Your task to perform on an android device: change notification settings in the gmail app Image 0: 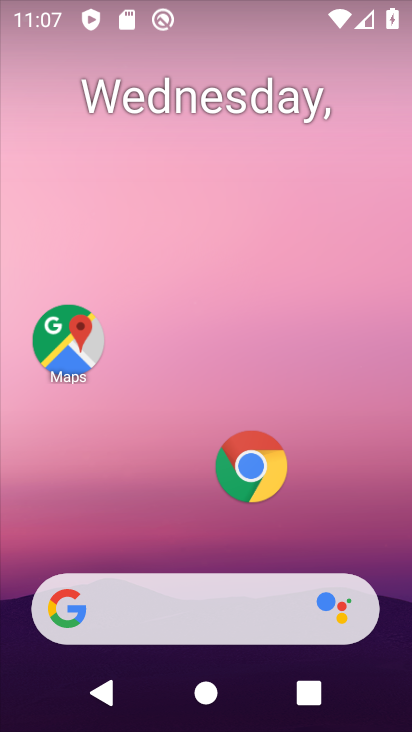
Step 0: drag from (269, 658) to (250, 178)
Your task to perform on an android device: change notification settings in the gmail app Image 1: 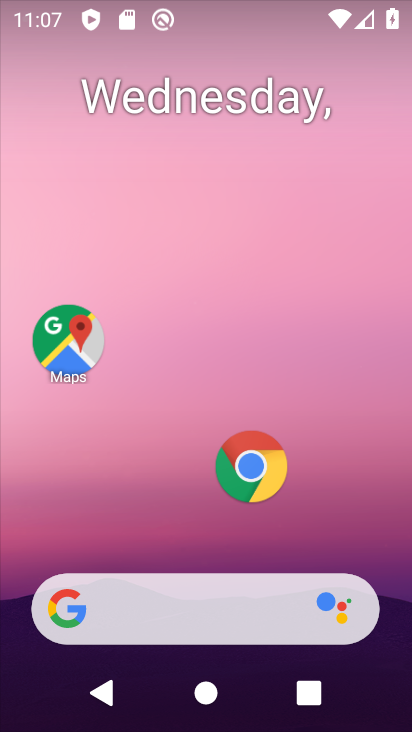
Step 1: drag from (275, 685) to (180, 23)
Your task to perform on an android device: change notification settings in the gmail app Image 2: 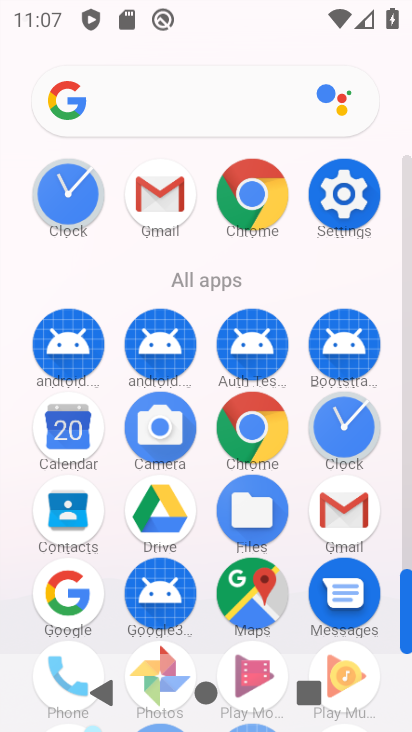
Step 2: click (349, 505)
Your task to perform on an android device: change notification settings in the gmail app Image 3: 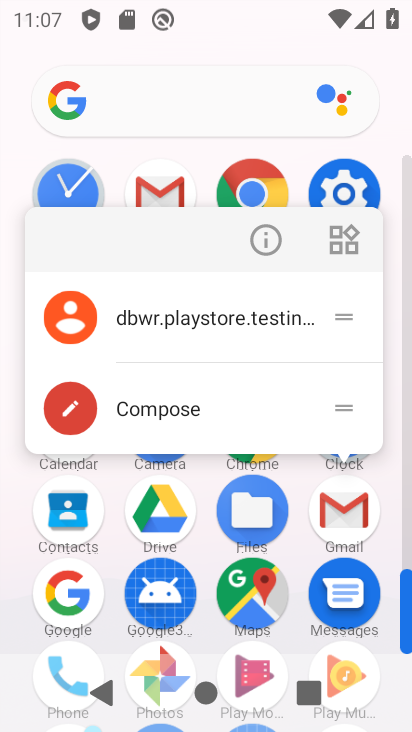
Step 3: click (349, 505)
Your task to perform on an android device: change notification settings in the gmail app Image 4: 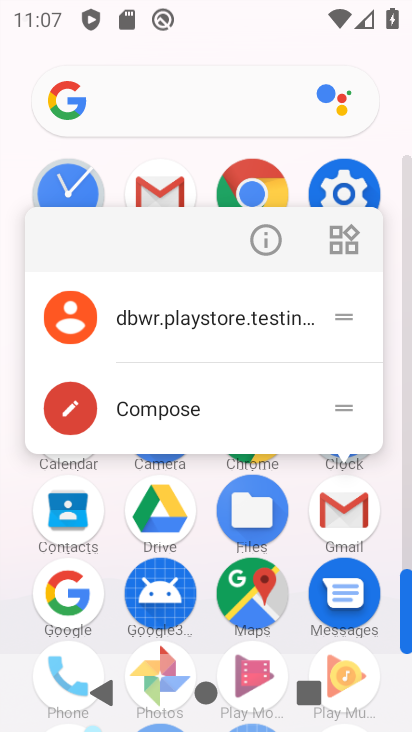
Step 4: click (206, 306)
Your task to perform on an android device: change notification settings in the gmail app Image 5: 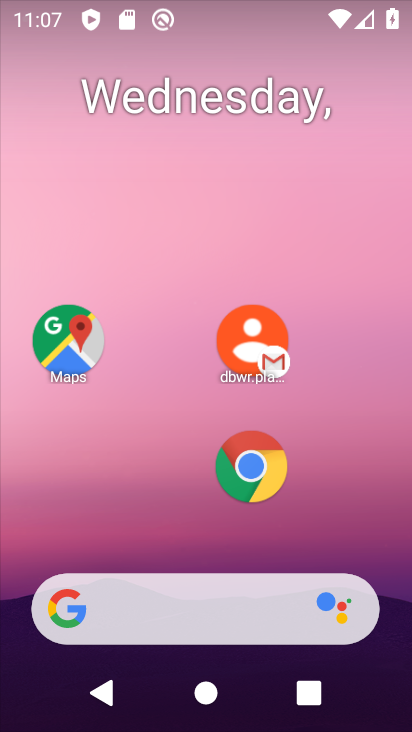
Step 5: drag from (312, 639) to (199, 148)
Your task to perform on an android device: change notification settings in the gmail app Image 6: 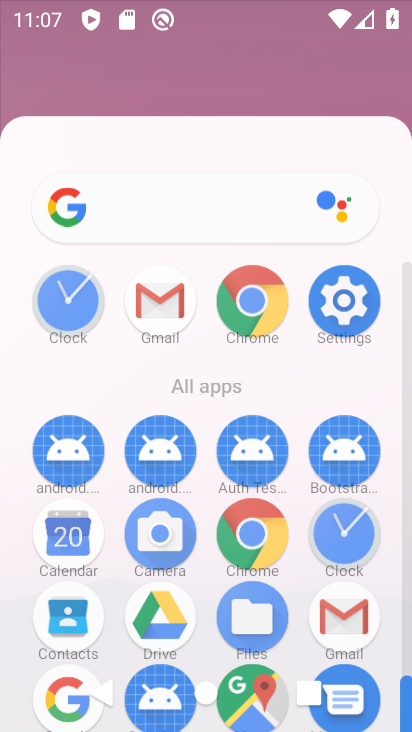
Step 6: drag from (321, 440) to (270, 268)
Your task to perform on an android device: change notification settings in the gmail app Image 7: 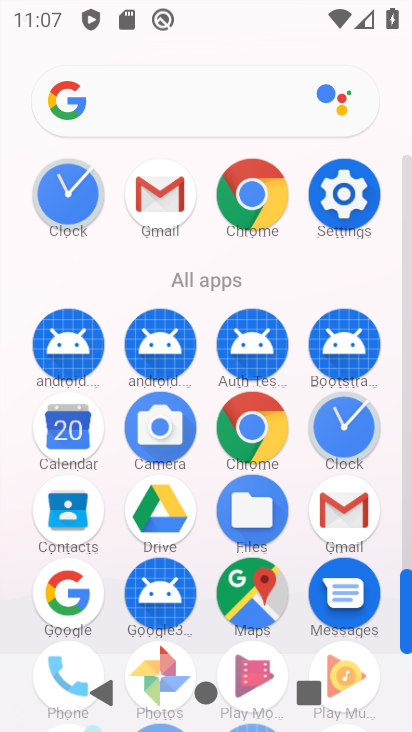
Step 7: click (343, 507)
Your task to perform on an android device: change notification settings in the gmail app Image 8: 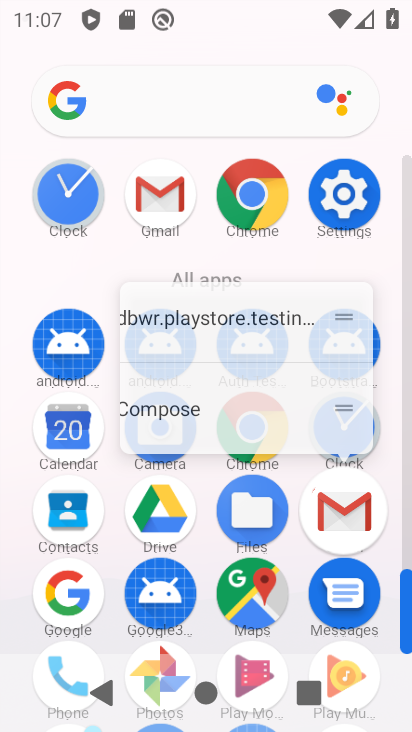
Step 8: click (344, 507)
Your task to perform on an android device: change notification settings in the gmail app Image 9: 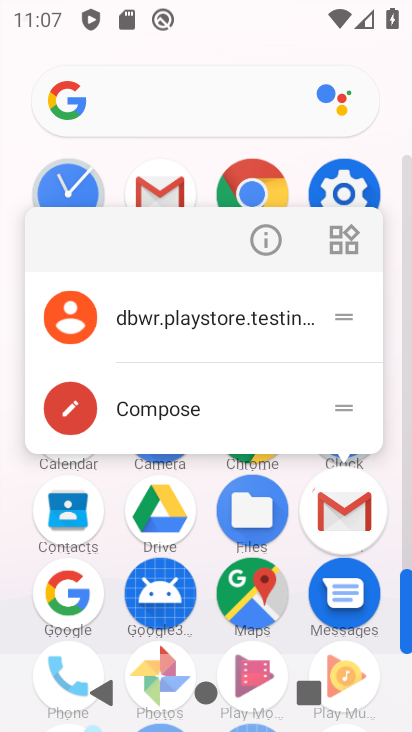
Step 9: click (344, 492)
Your task to perform on an android device: change notification settings in the gmail app Image 10: 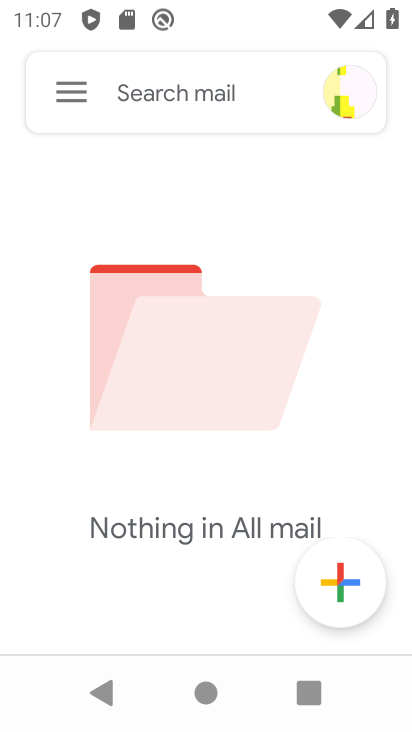
Step 10: click (71, 82)
Your task to perform on an android device: change notification settings in the gmail app Image 11: 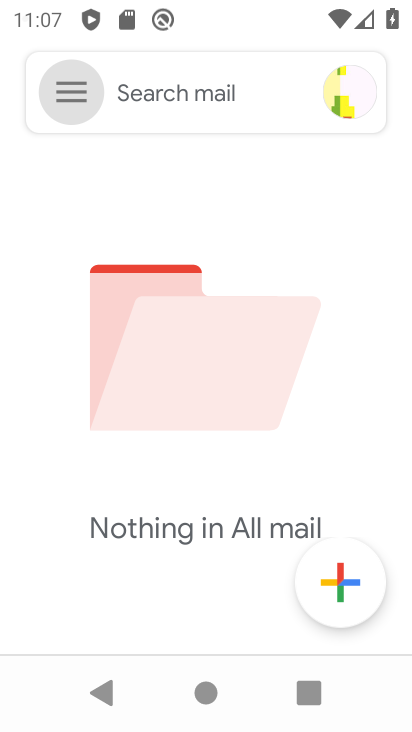
Step 11: click (72, 82)
Your task to perform on an android device: change notification settings in the gmail app Image 12: 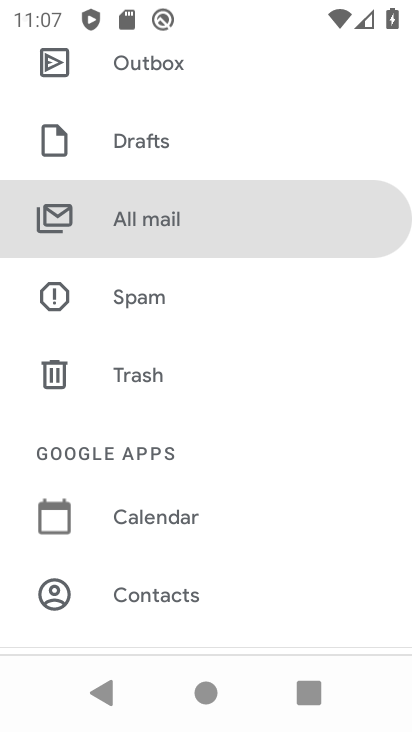
Step 12: click (73, 82)
Your task to perform on an android device: change notification settings in the gmail app Image 13: 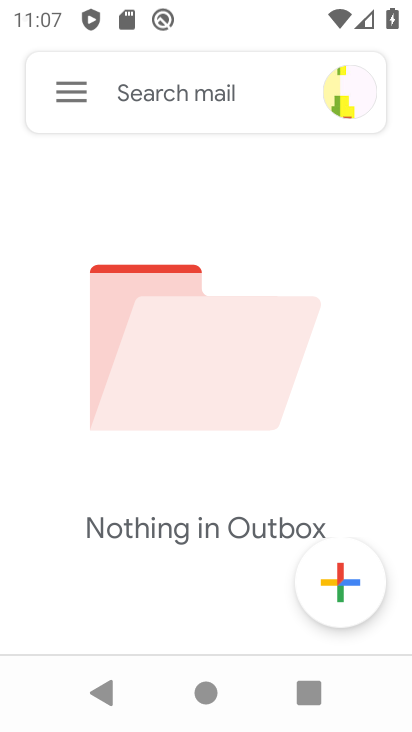
Step 13: click (72, 91)
Your task to perform on an android device: change notification settings in the gmail app Image 14: 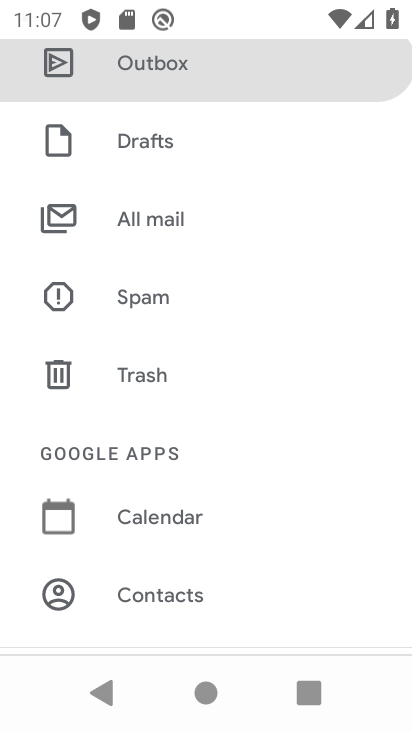
Step 14: drag from (226, 580) to (154, 153)
Your task to perform on an android device: change notification settings in the gmail app Image 15: 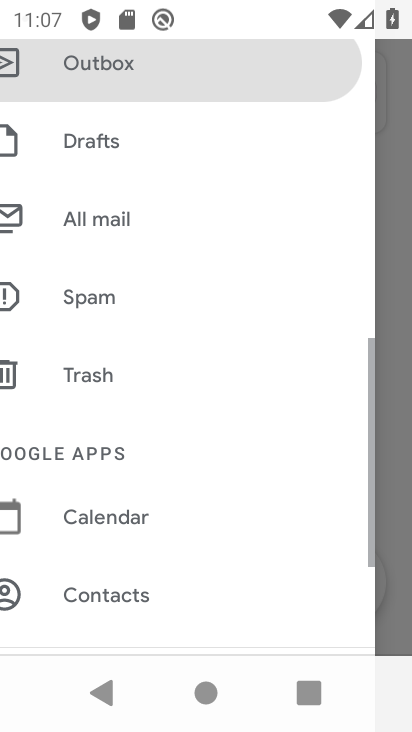
Step 15: drag from (247, 452) to (165, 177)
Your task to perform on an android device: change notification settings in the gmail app Image 16: 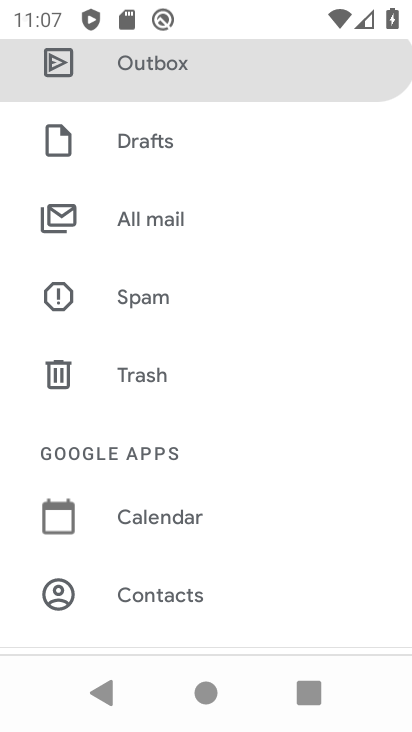
Step 16: drag from (205, 462) to (154, 173)
Your task to perform on an android device: change notification settings in the gmail app Image 17: 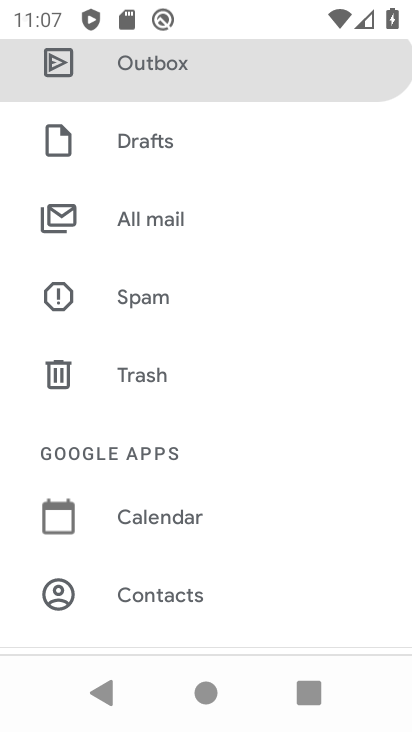
Step 17: drag from (212, 482) to (149, 174)
Your task to perform on an android device: change notification settings in the gmail app Image 18: 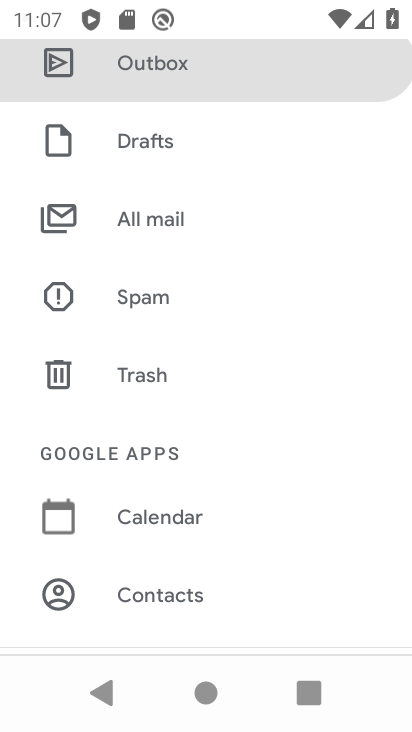
Step 18: drag from (209, 474) to (208, 103)
Your task to perform on an android device: change notification settings in the gmail app Image 19: 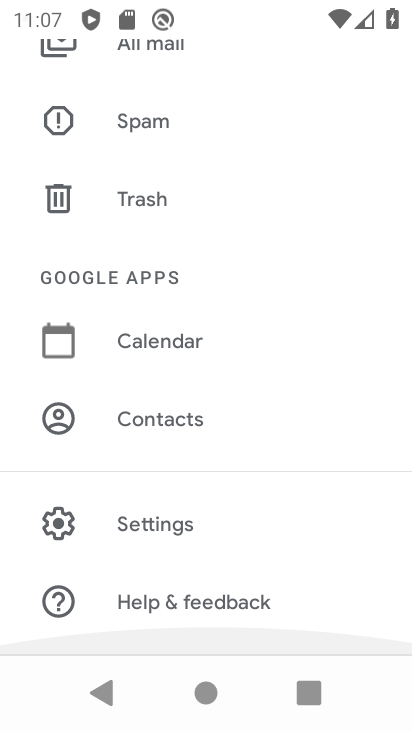
Step 19: drag from (231, 545) to (175, 192)
Your task to perform on an android device: change notification settings in the gmail app Image 20: 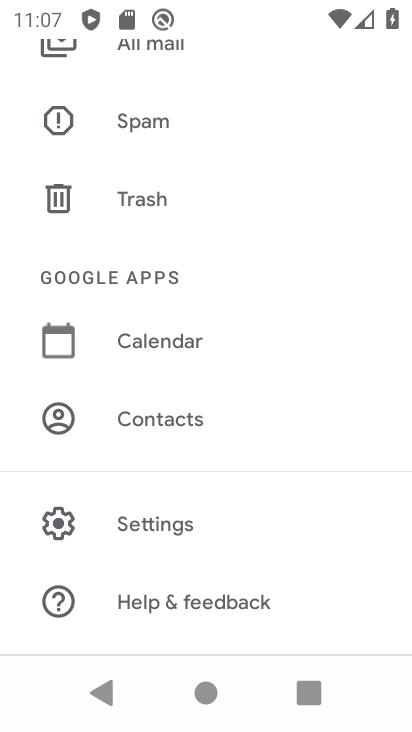
Step 20: click (160, 523)
Your task to perform on an android device: change notification settings in the gmail app Image 21: 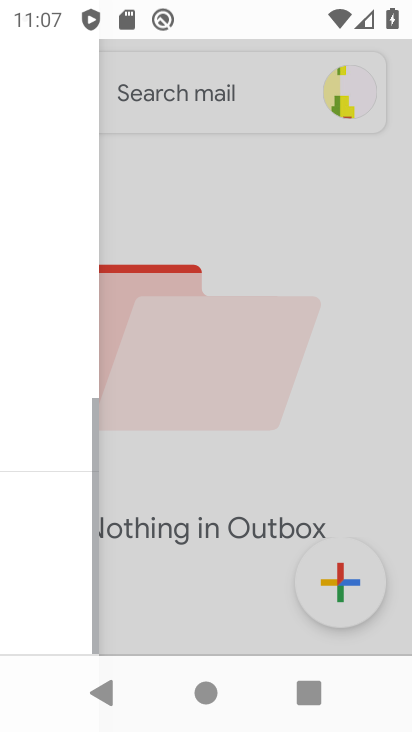
Step 21: click (160, 523)
Your task to perform on an android device: change notification settings in the gmail app Image 22: 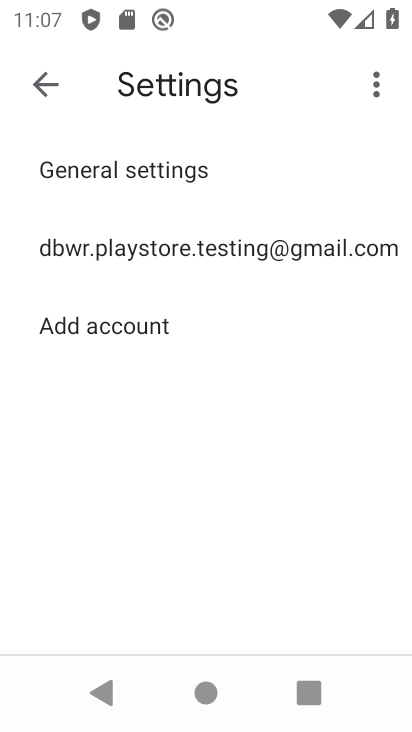
Step 22: click (184, 251)
Your task to perform on an android device: change notification settings in the gmail app Image 23: 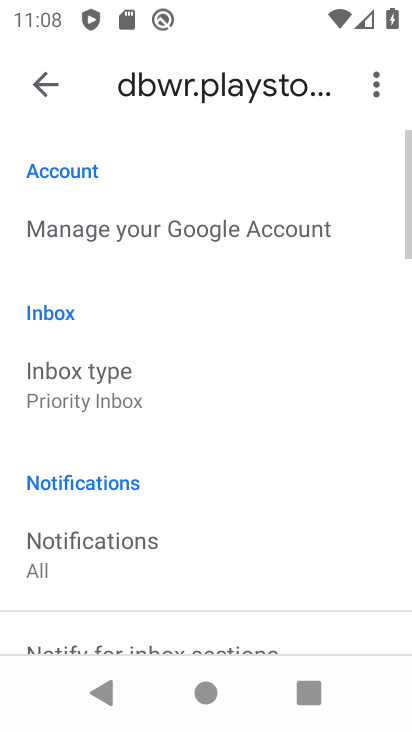
Step 23: drag from (134, 477) to (123, 82)
Your task to perform on an android device: change notification settings in the gmail app Image 24: 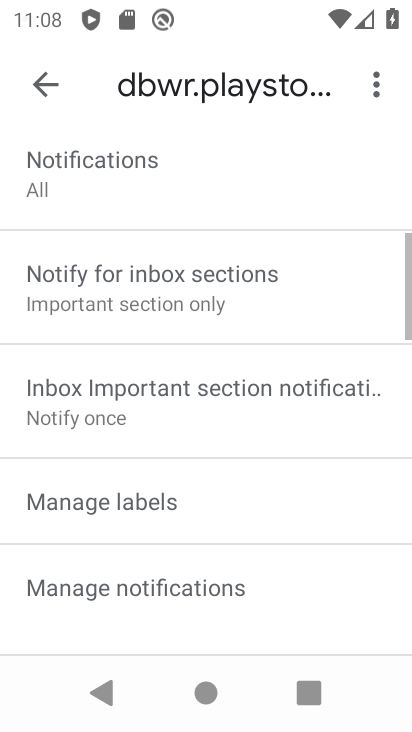
Step 24: drag from (50, 437) to (33, 242)
Your task to perform on an android device: change notification settings in the gmail app Image 25: 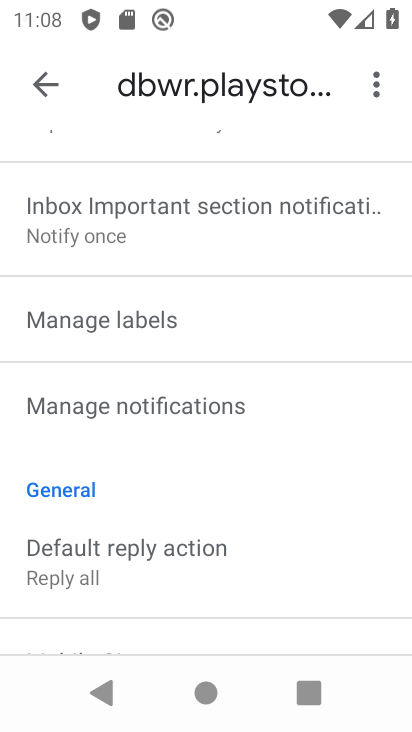
Step 25: drag from (108, 225) to (236, 679)
Your task to perform on an android device: change notification settings in the gmail app Image 26: 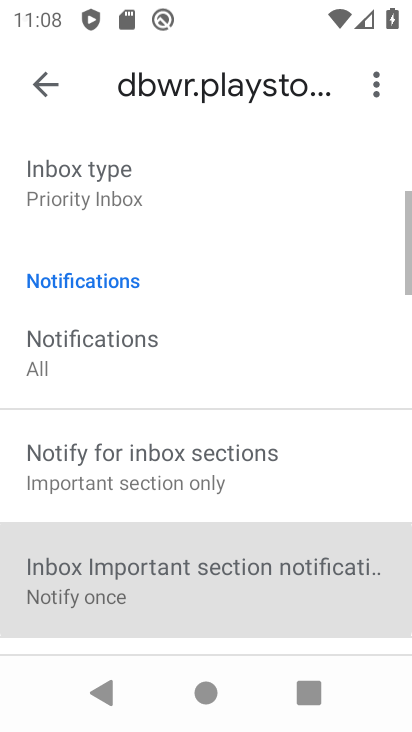
Step 26: drag from (125, 367) to (191, 561)
Your task to perform on an android device: change notification settings in the gmail app Image 27: 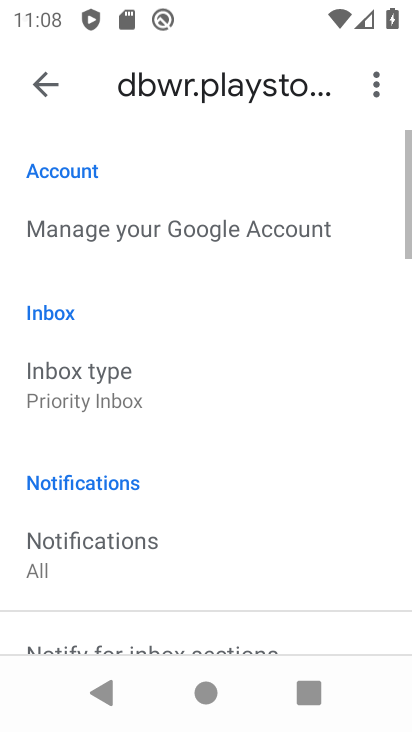
Step 27: drag from (163, 410) to (199, 553)
Your task to perform on an android device: change notification settings in the gmail app Image 28: 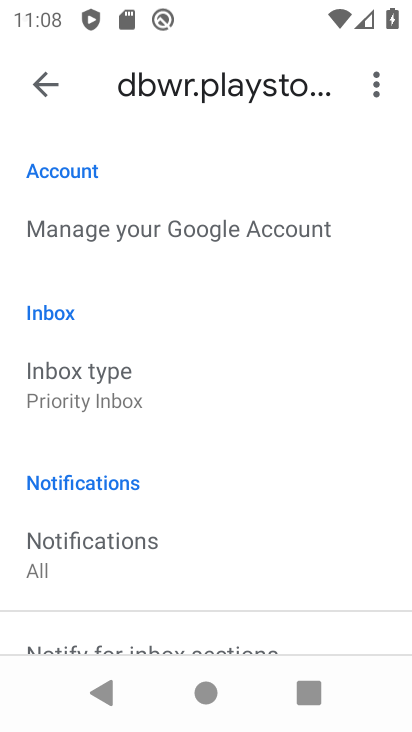
Step 28: drag from (90, 523) to (112, 207)
Your task to perform on an android device: change notification settings in the gmail app Image 29: 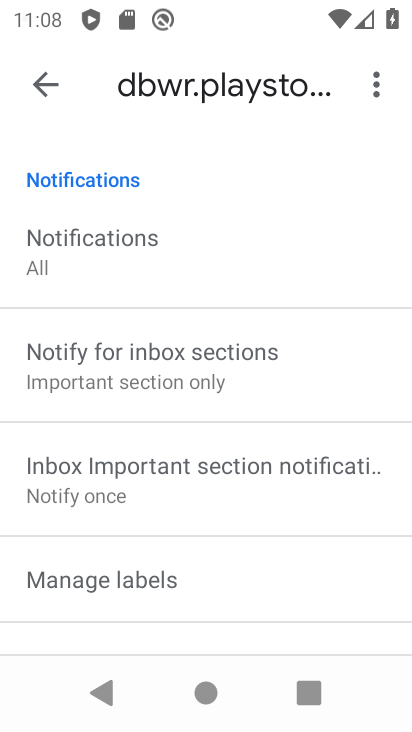
Step 29: click (77, 226)
Your task to perform on an android device: change notification settings in the gmail app Image 30: 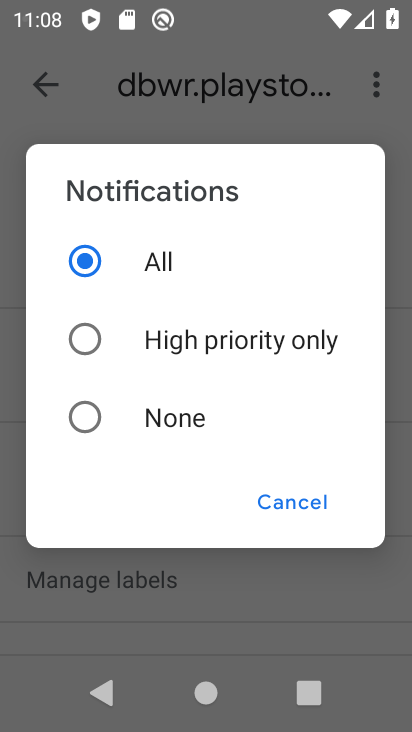
Step 30: click (87, 342)
Your task to perform on an android device: change notification settings in the gmail app Image 31: 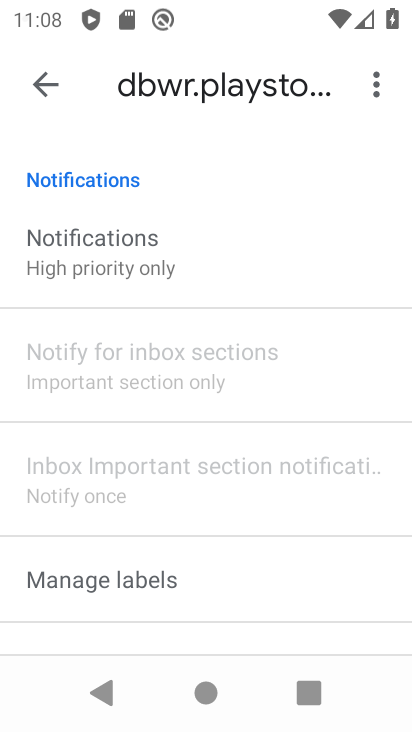
Step 31: task complete